Your task to perform on an android device: Open wifi settings Image 0: 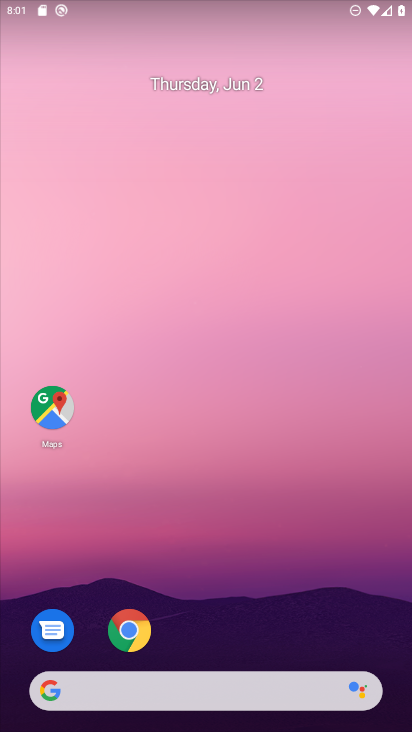
Step 0: drag from (130, 698) to (75, 106)
Your task to perform on an android device: Open wifi settings Image 1: 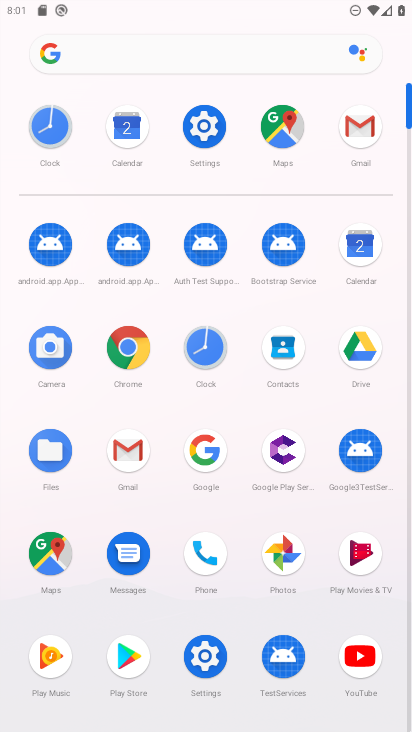
Step 1: click (204, 134)
Your task to perform on an android device: Open wifi settings Image 2: 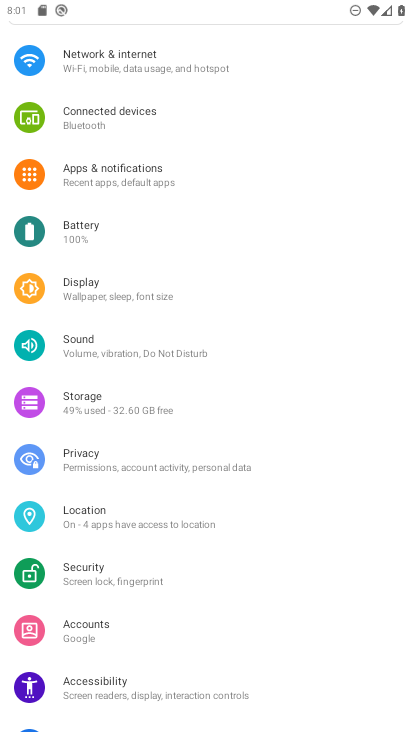
Step 2: click (193, 70)
Your task to perform on an android device: Open wifi settings Image 3: 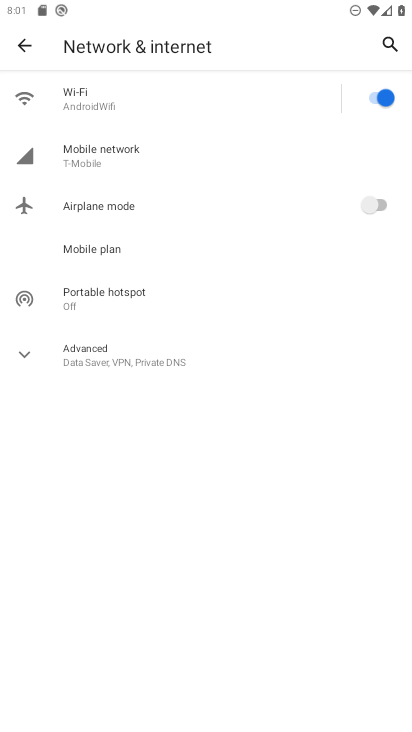
Step 3: click (171, 107)
Your task to perform on an android device: Open wifi settings Image 4: 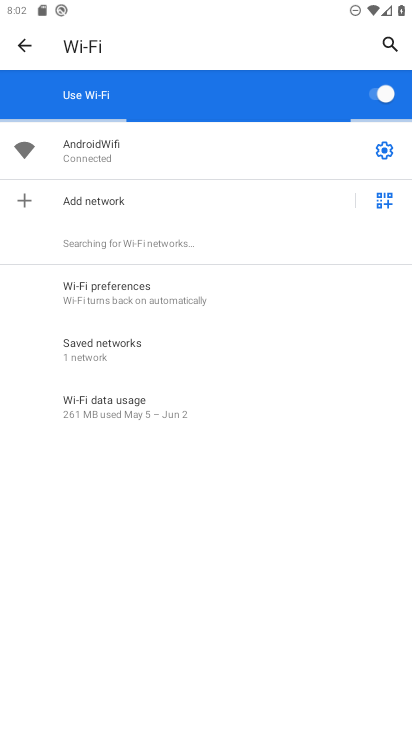
Step 4: task complete